Your task to perform on an android device: Open notification settings Image 0: 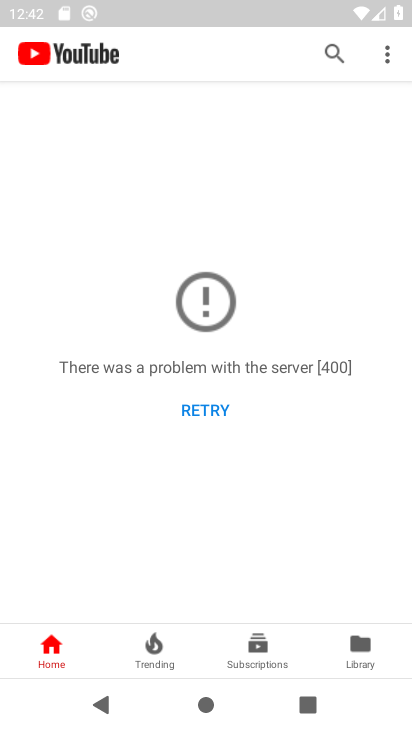
Step 0: press home button
Your task to perform on an android device: Open notification settings Image 1: 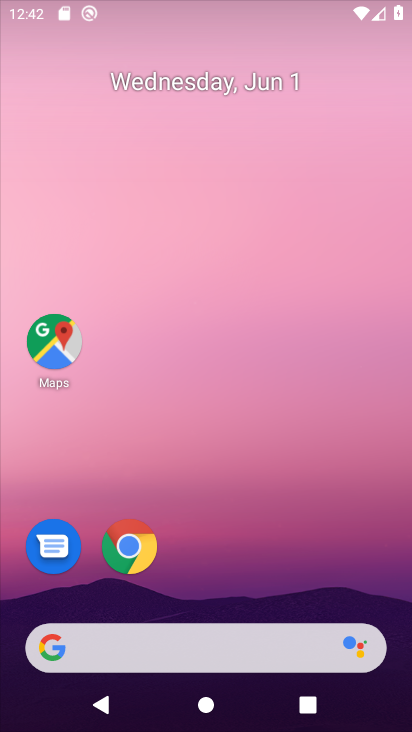
Step 1: drag from (223, 395) to (276, 52)
Your task to perform on an android device: Open notification settings Image 2: 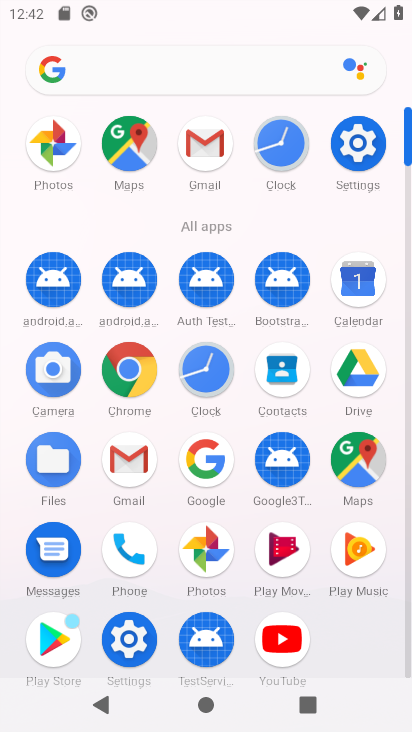
Step 2: click (369, 140)
Your task to perform on an android device: Open notification settings Image 3: 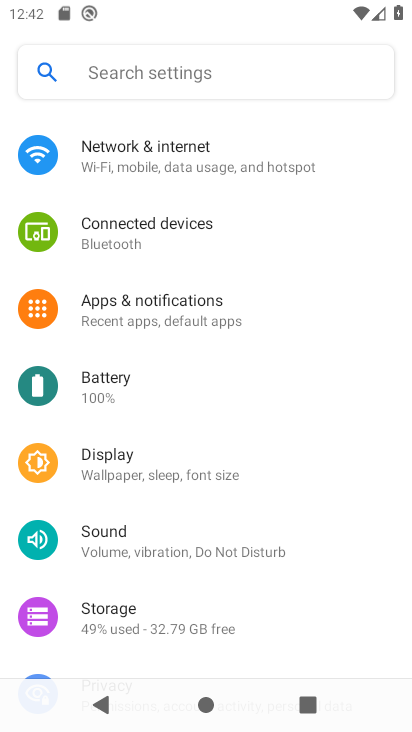
Step 3: click (363, 142)
Your task to perform on an android device: Open notification settings Image 4: 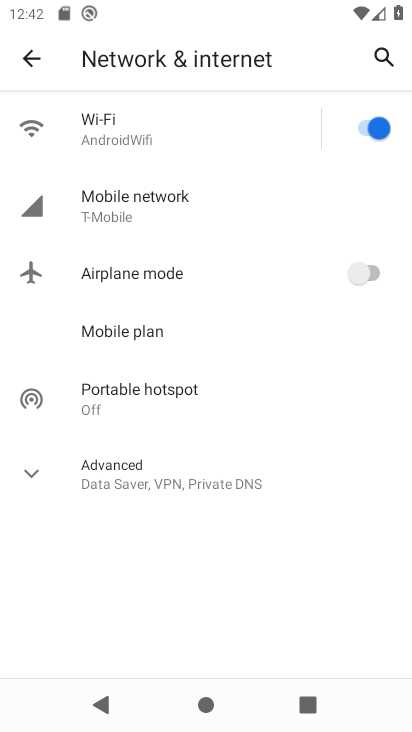
Step 4: click (28, 51)
Your task to perform on an android device: Open notification settings Image 5: 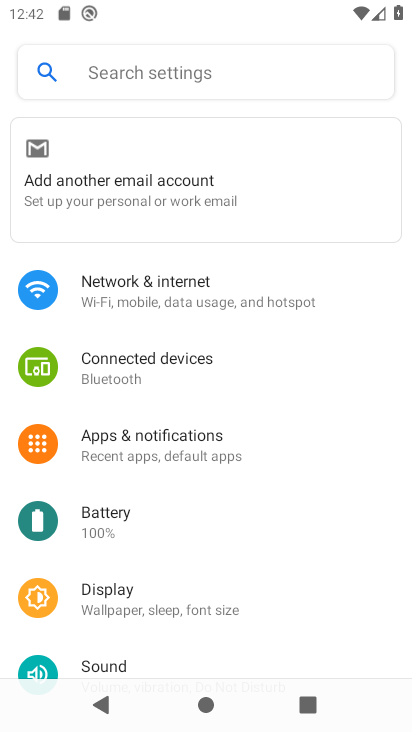
Step 5: click (134, 448)
Your task to perform on an android device: Open notification settings Image 6: 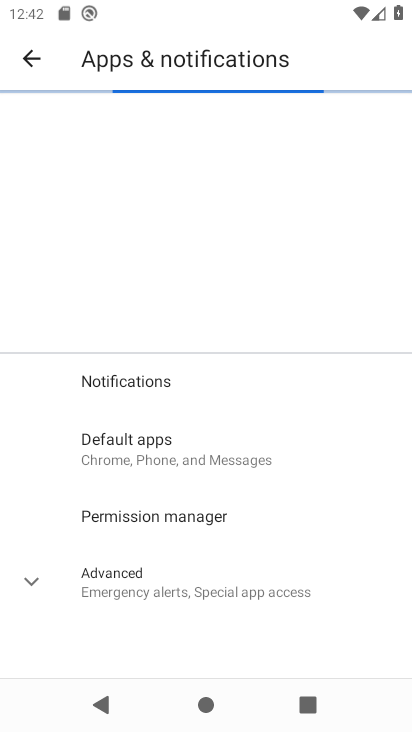
Step 6: click (169, 438)
Your task to perform on an android device: Open notification settings Image 7: 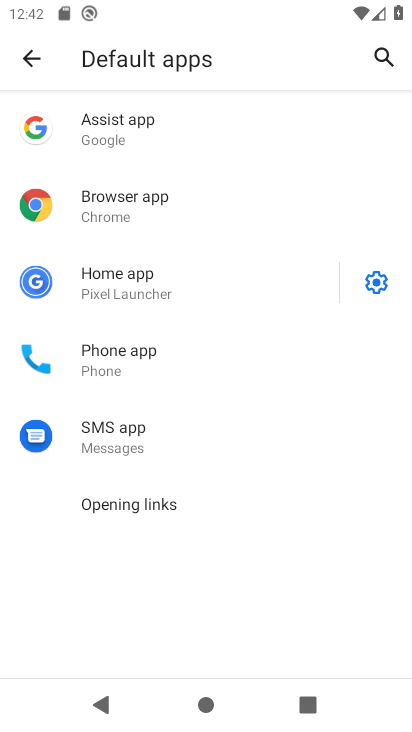
Step 7: click (29, 47)
Your task to perform on an android device: Open notification settings Image 8: 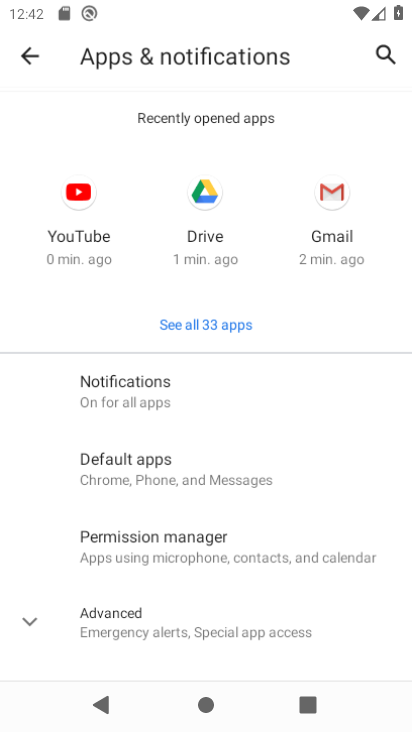
Step 8: task complete